Your task to perform on an android device: Go to eBay Image 0: 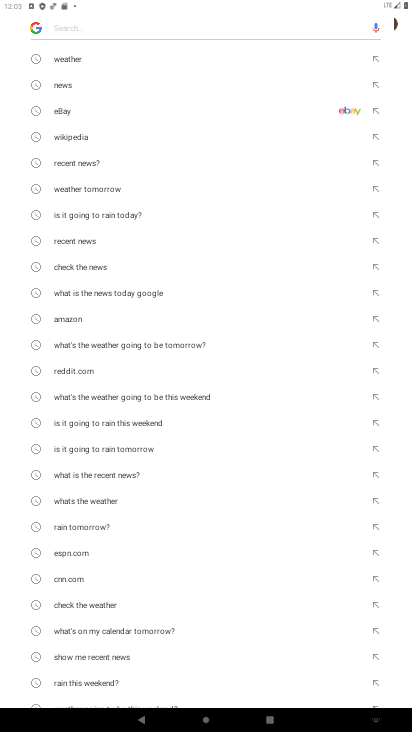
Step 0: click (125, 119)
Your task to perform on an android device: Go to eBay Image 1: 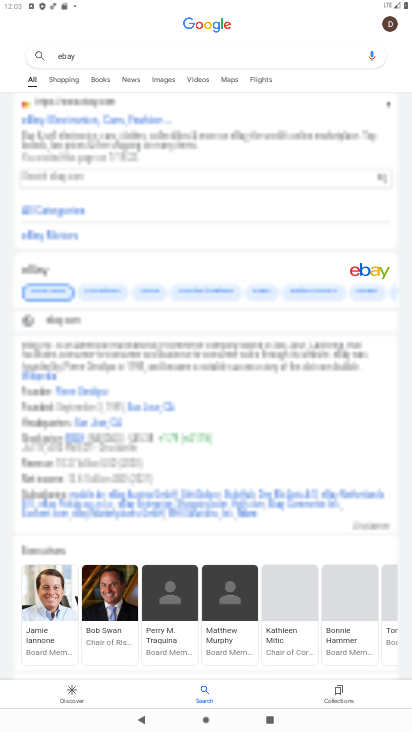
Step 1: click (77, 101)
Your task to perform on an android device: Go to eBay Image 2: 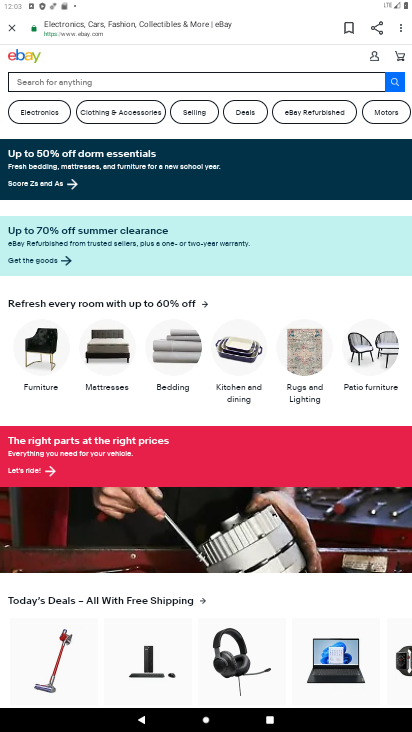
Step 2: task complete